Your task to perform on an android device: install app "Speedtest by Ookla" Image 0: 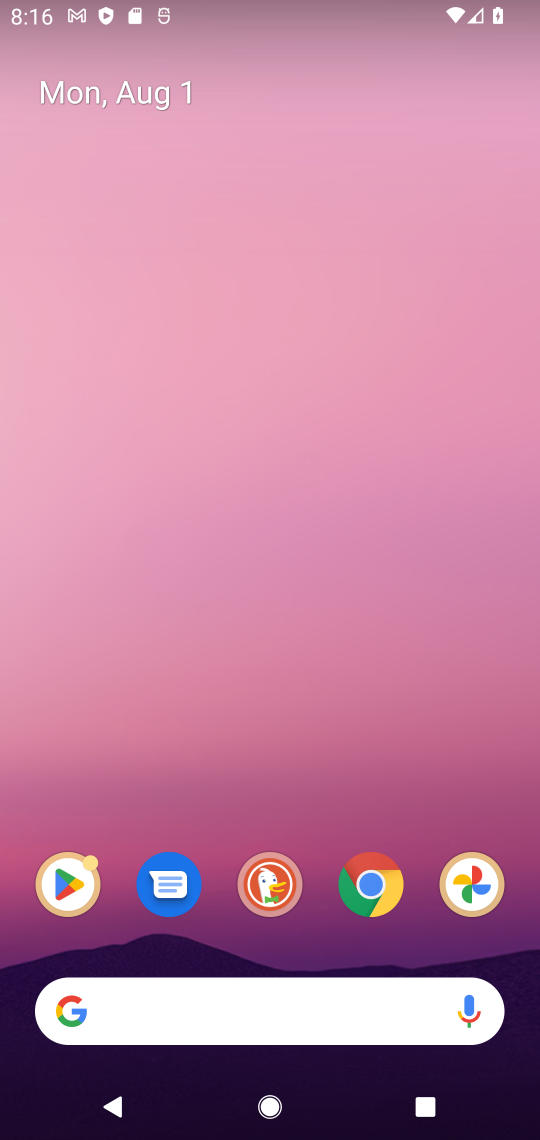
Step 0: drag from (225, 619) to (327, 90)
Your task to perform on an android device: install app "Speedtest by Ookla" Image 1: 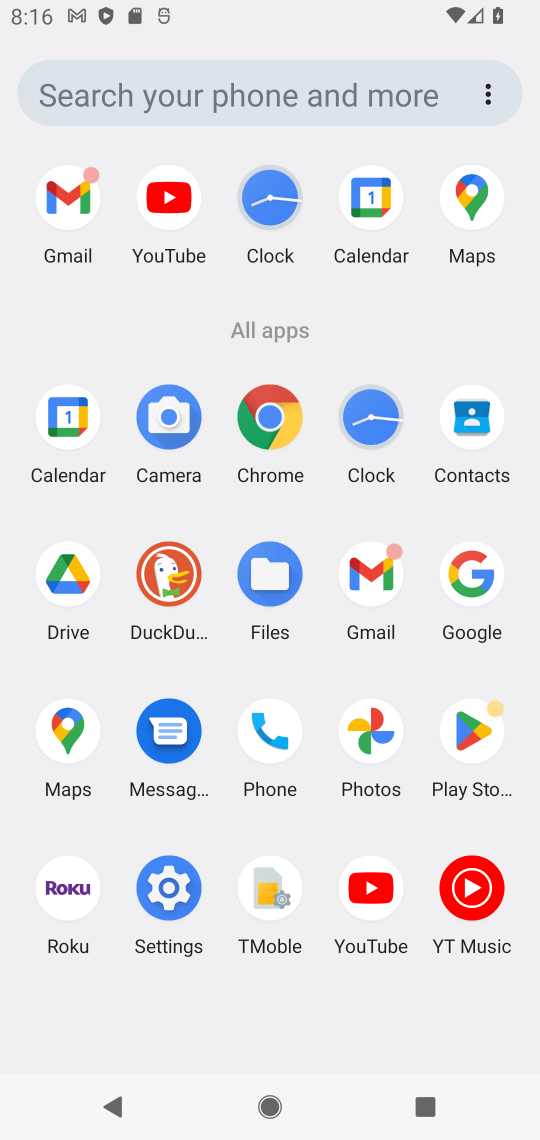
Step 1: click (456, 793)
Your task to perform on an android device: install app "Speedtest by Ookla" Image 2: 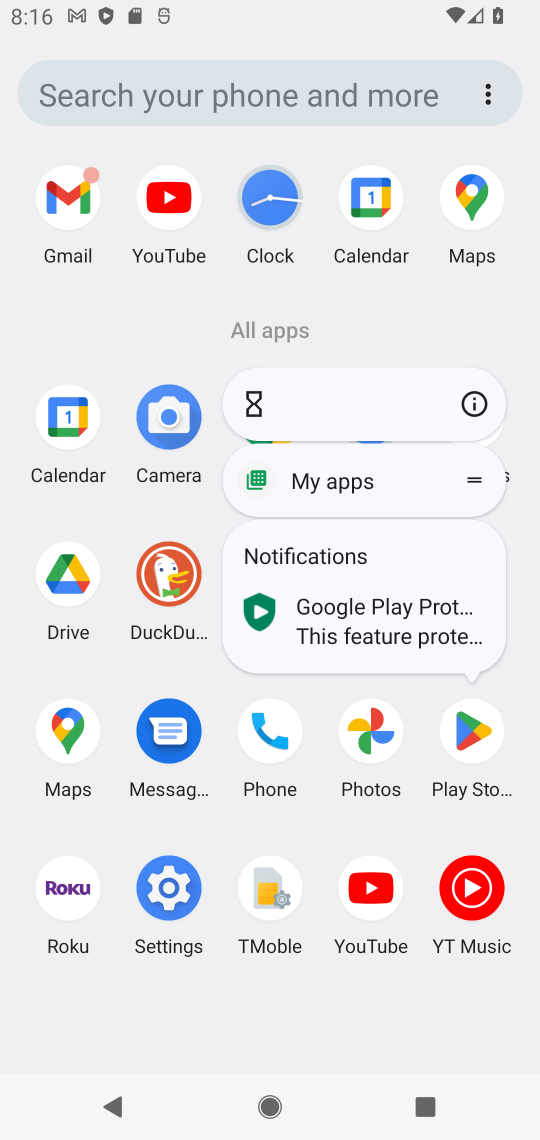
Step 2: click (474, 737)
Your task to perform on an android device: install app "Speedtest by Ookla" Image 3: 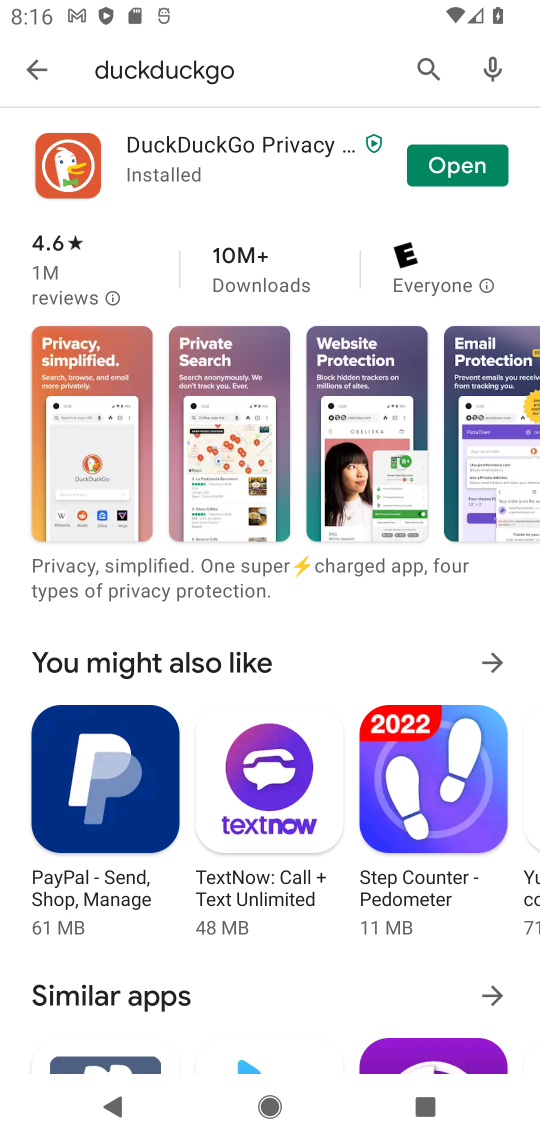
Step 3: click (421, 68)
Your task to perform on an android device: install app "Speedtest by Ookla" Image 4: 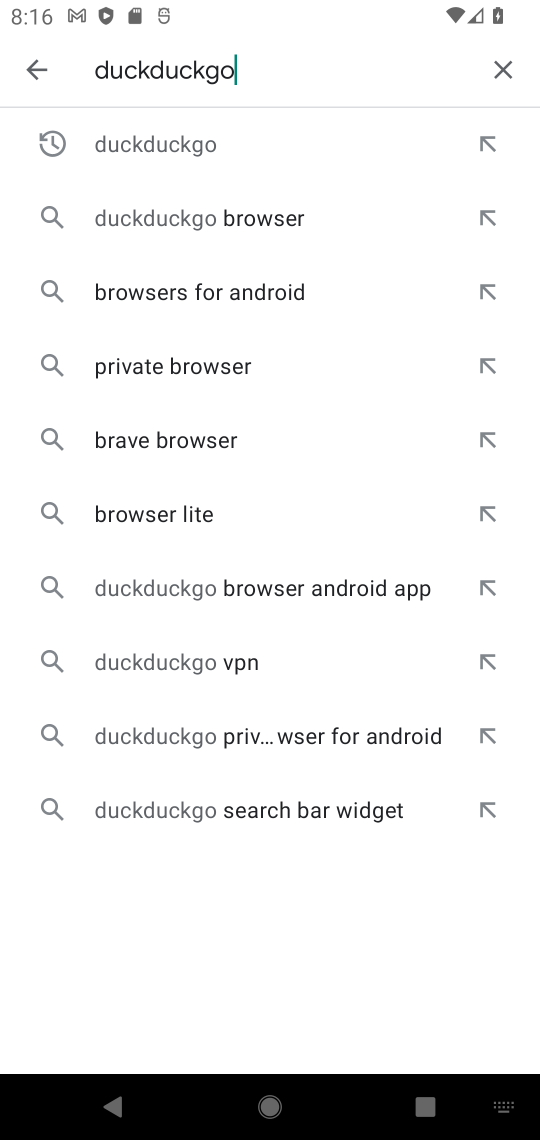
Step 4: click (501, 72)
Your task to perform on an android device: install app "Speedtest by Ookla" Image 5: 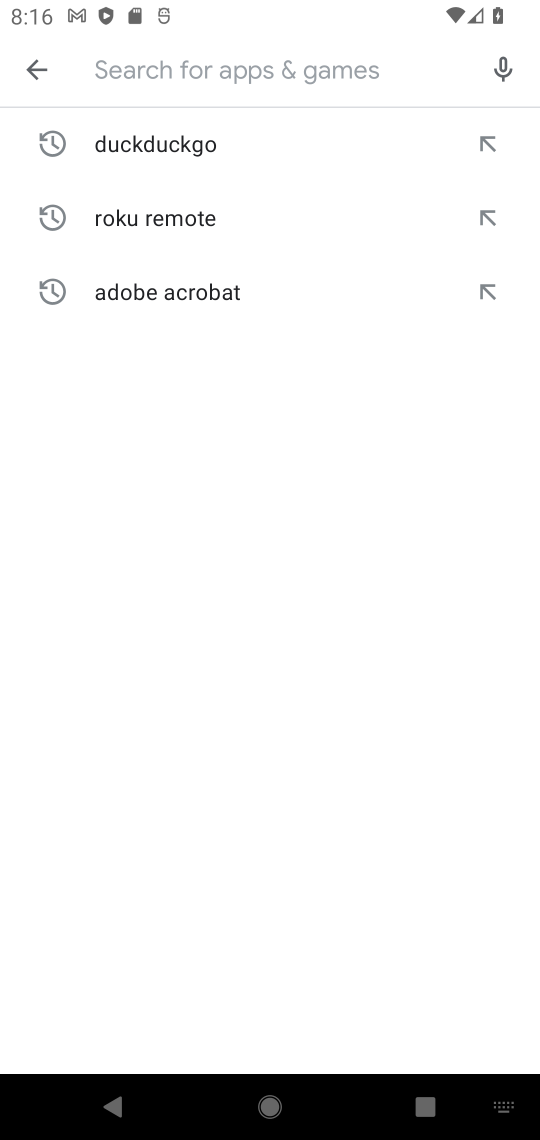
Step 5: type "speedtest"
Your task to perform on an android device: install app "Speedtest by Ookla" Image 6: 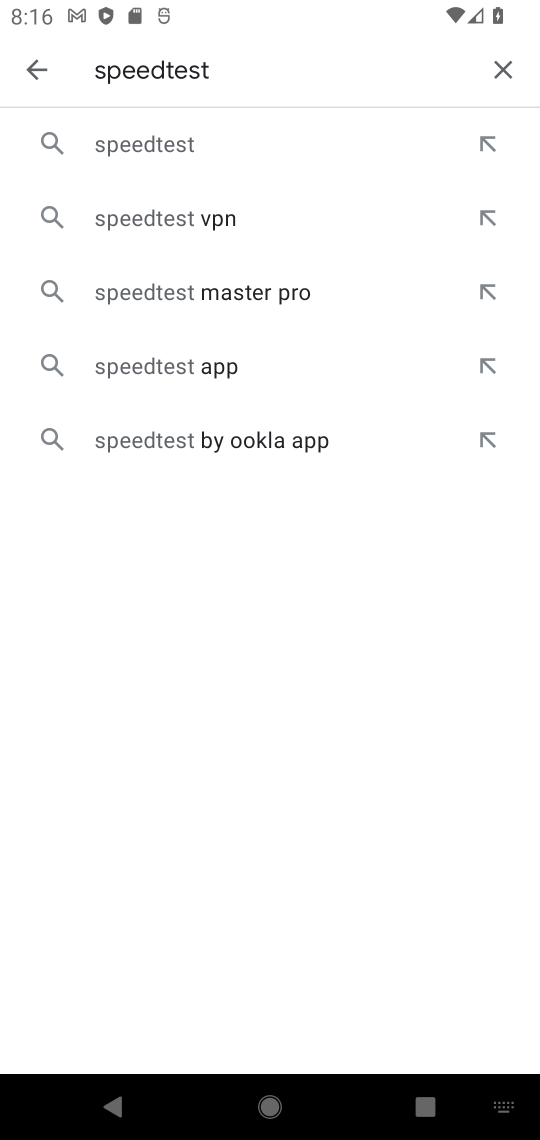
Step 6: click (243, 144)
Your task to perform on an android device: install app "Speedtest by Ookla" Image 7: 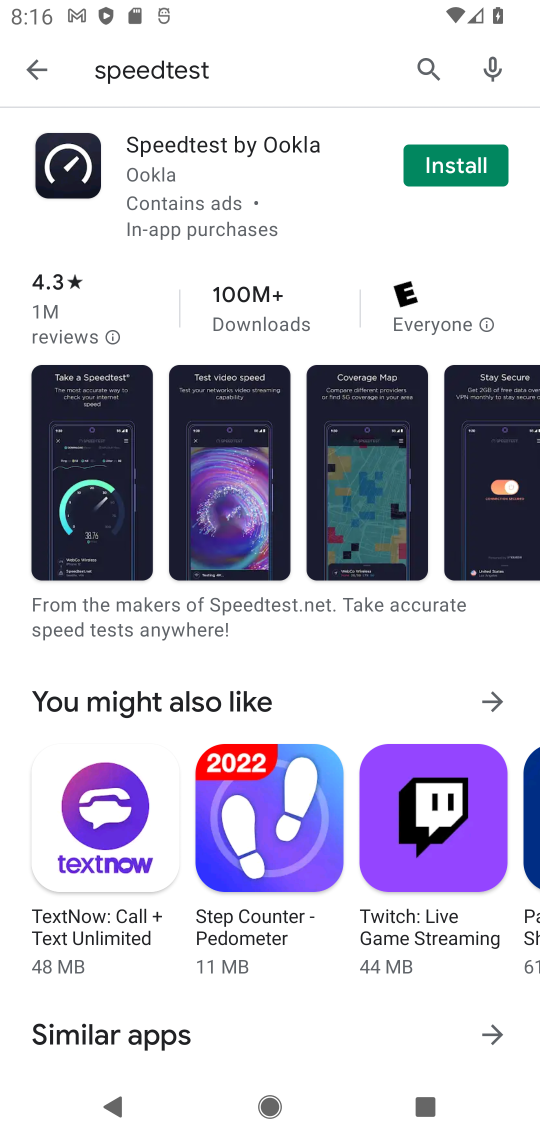
Step 7: click (445, 164)
Your task to perform on an android device: install app "Speedtest by Ookla" Image 8: 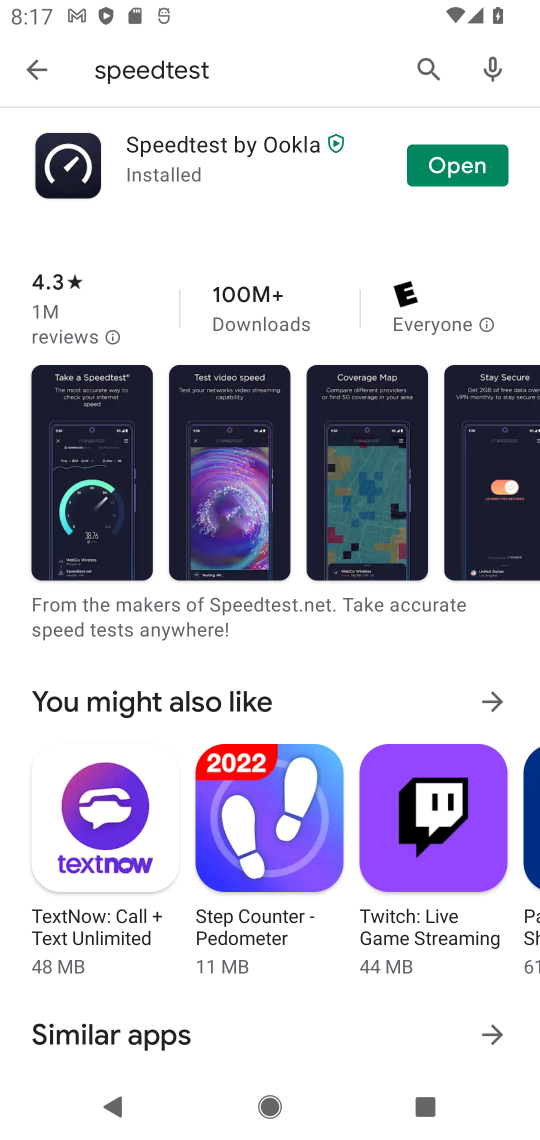
Step 8: task complete